Your task to perform on an android device: Go to calendar. Show me events next week Image 0: 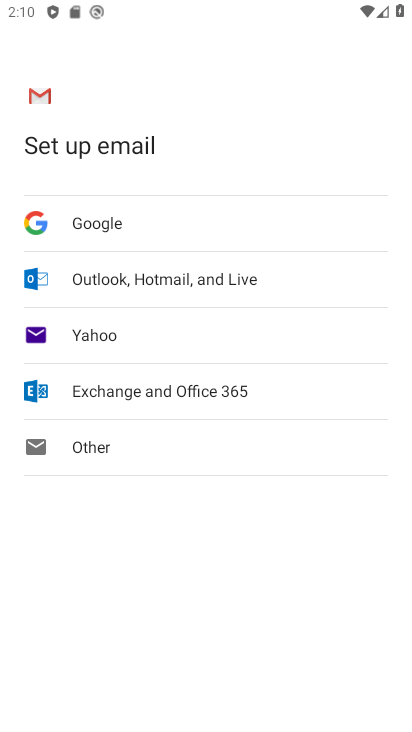
Step 0: press home button
Your task to perform on an android device: Go to calendar. Show me events next week Image 1: 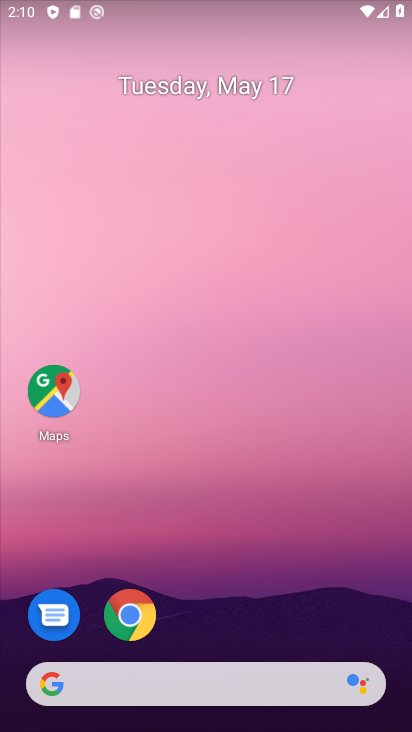
Step 1: drag from (226, 725) to (240, 184)
Your task to perform on an android device: Go to calendar. Show me events next week Image 2: 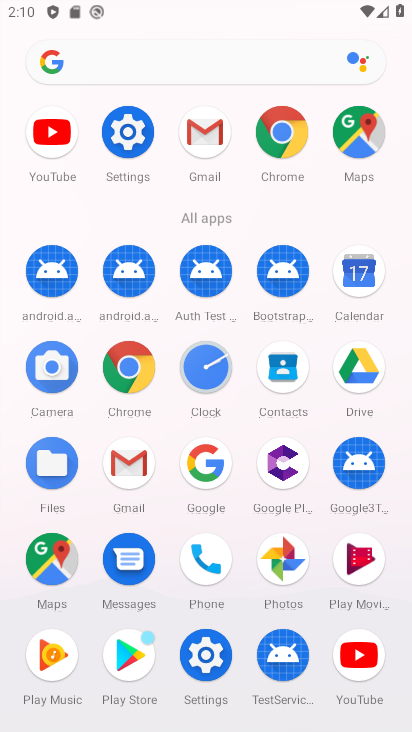
Step 2: click (363, 275)
Your task to perform on an android device: Go to calendar. Show me events next week Image 3: 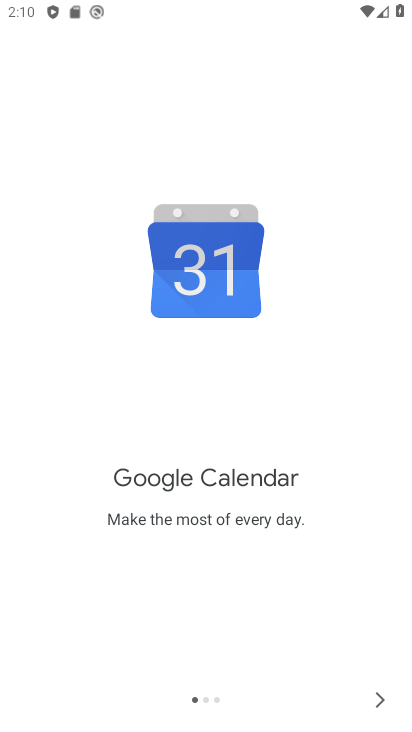
Step 3: click (383, 697)
Your task to perform on an android device: Go to calendar. Show me events next week Image 4: 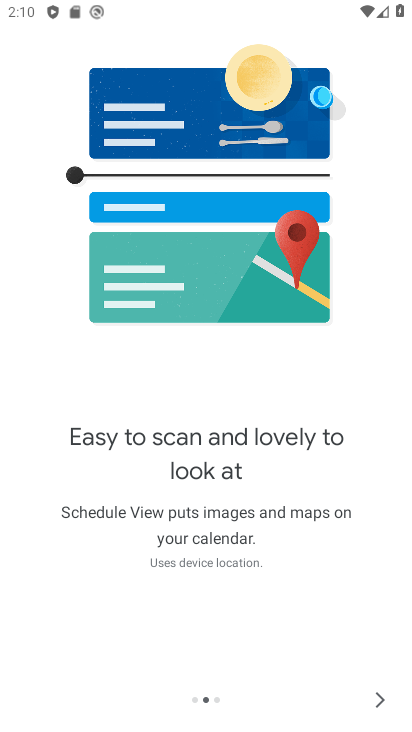
Step 4: click (379, 696)
Your task to perform on an android device: Go to calendar. Show me events next week Image 5: 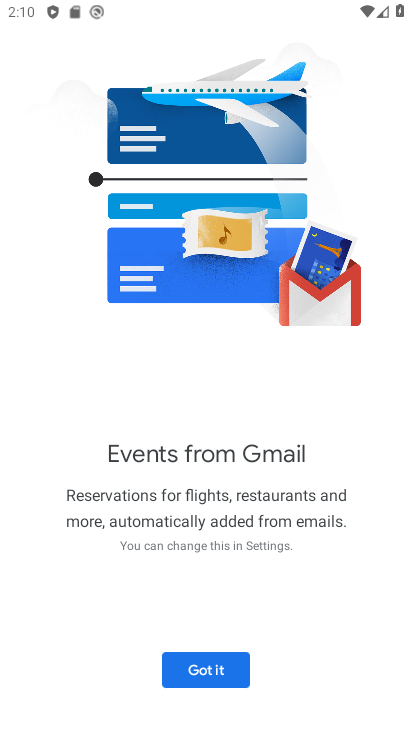
Step 5: click (225, 666)
Your task to perform on an android device: Go to calendar. Show me events next week Image 6: 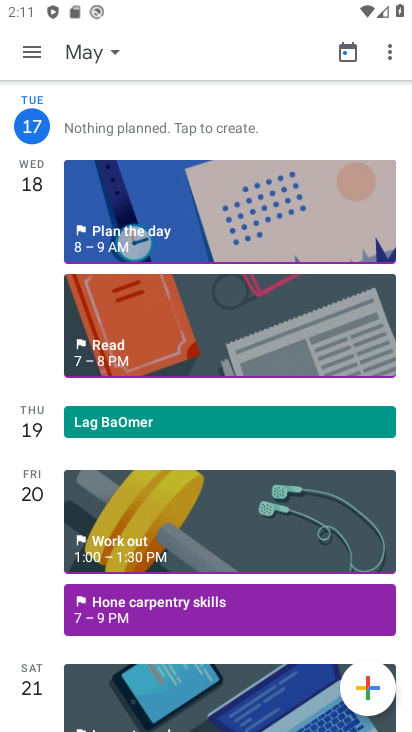
Step 6: click (27, 50)
Your task to perform on an android device: Go to calendar. Show me events next week Image 7: 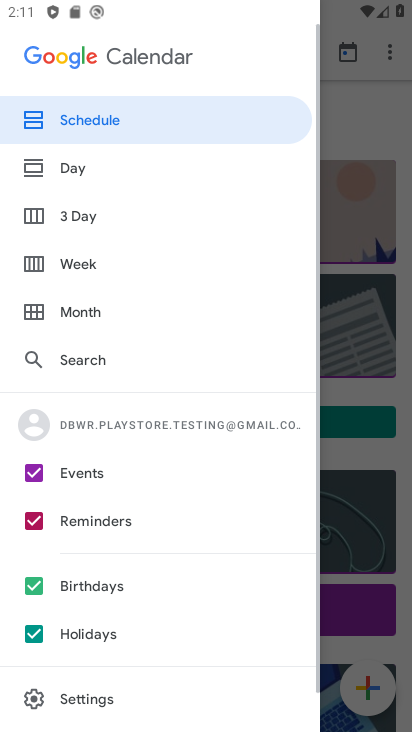
Step 7: click (39, 631)
Your task to perform on an android device: Go to calendar. Show me events next week Image 8: 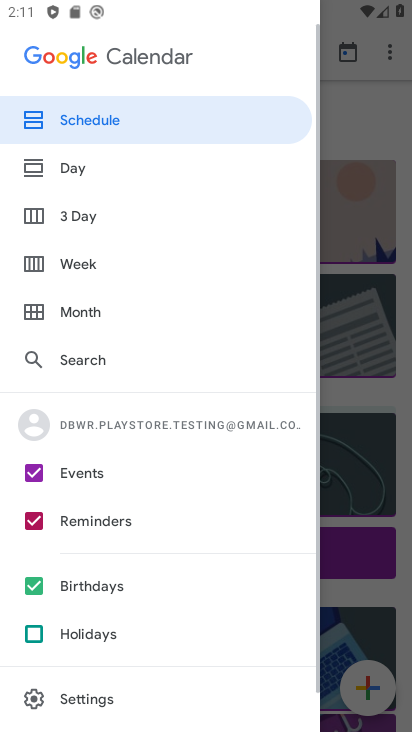
Step 8: click (43, 583)
Your task to perform on an android device: Go to calendar. Show me events next week Image 9: 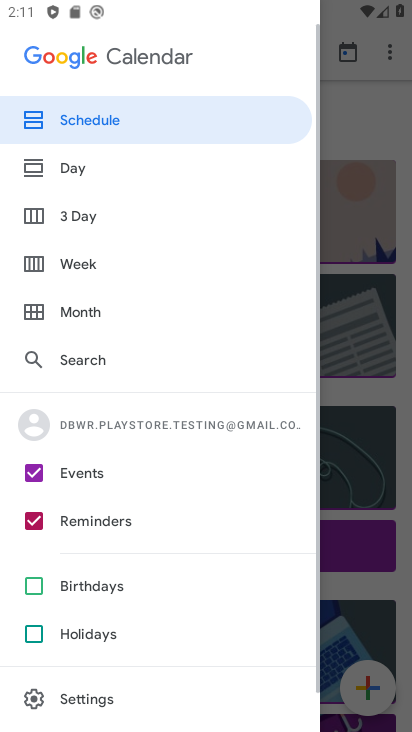
Step 9: click (36, 519)
Your task to perform on an android device: Go to calendar. Show me events next week Image 10: 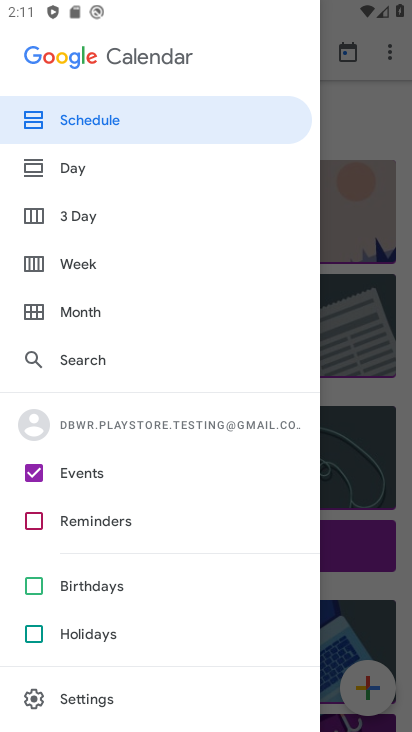
Step 10: click (101, 262)
Your task to perform on an android device: Go to calendar. Show me events next week Image 11: 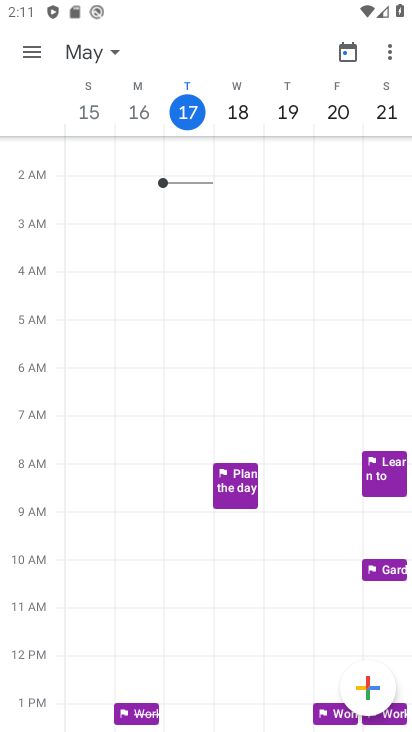
Step 11: click (96, 51)
Your task to perform on an android device: Go to calendar. Show me events next week Image 12: 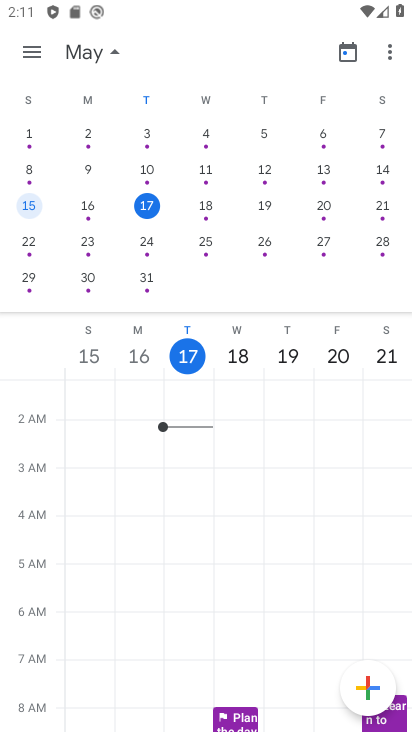
Step 12: click (355, 209)
Your task to perform on an android device: Go to calendar. Show me events next week Image 13: 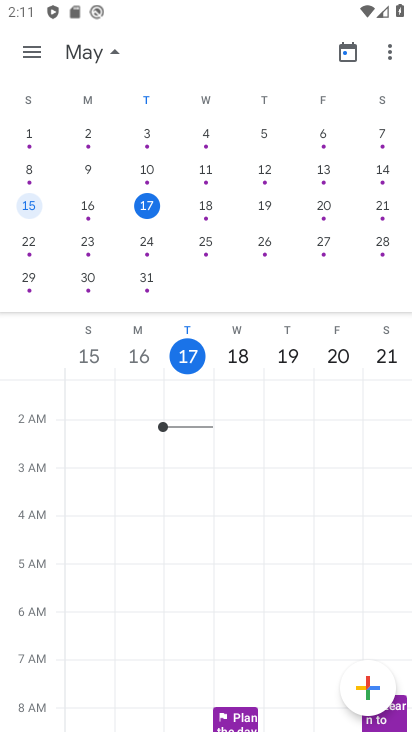
Step 13: click (89, 238)
Your task to perform on an android device: Go to calendar. Show me events next week Image 14: 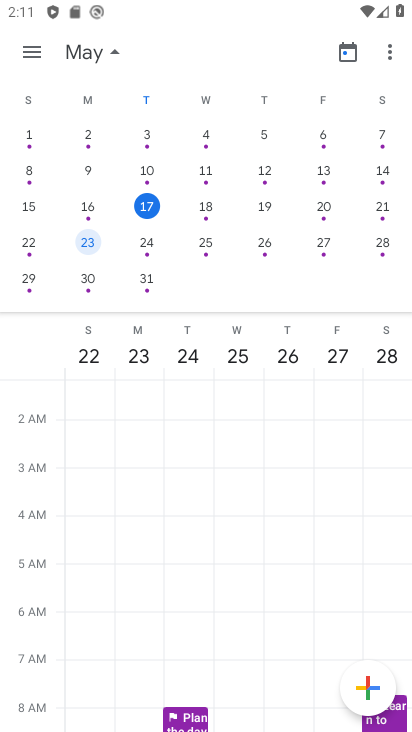
Step 14: click (115, 47)
Your task to perform on an android device: Go to calendar. Show me events next week Image 15: 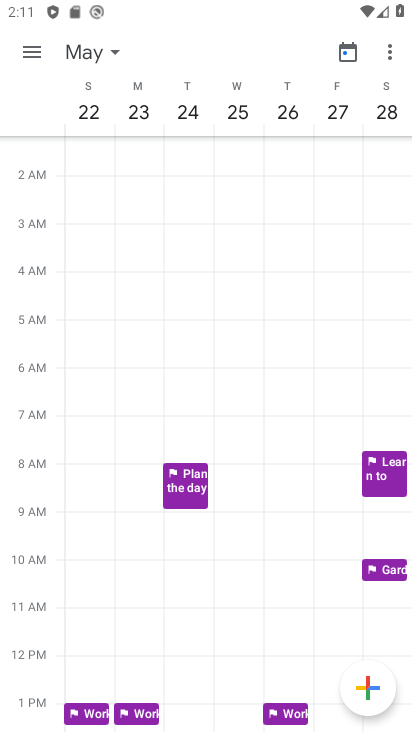
Step 15: task complete